Your task to perform on an android device: turn off translation in the chrome app Image 0: 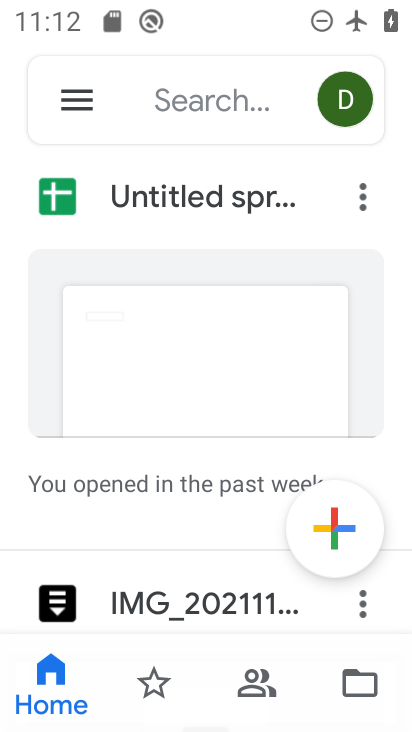
Step 0: press home button
Your task to perform on an android device: turn off translation in the chrome app Image 1: 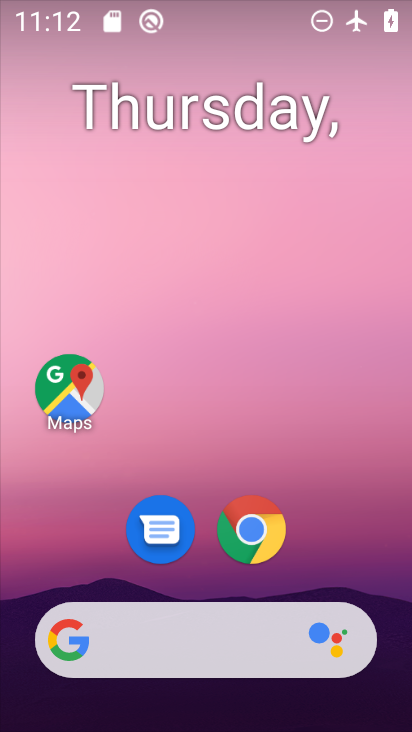
Step 1: press home button
Your task to perform on an android device: turn off translation in the chrome app Image 2: 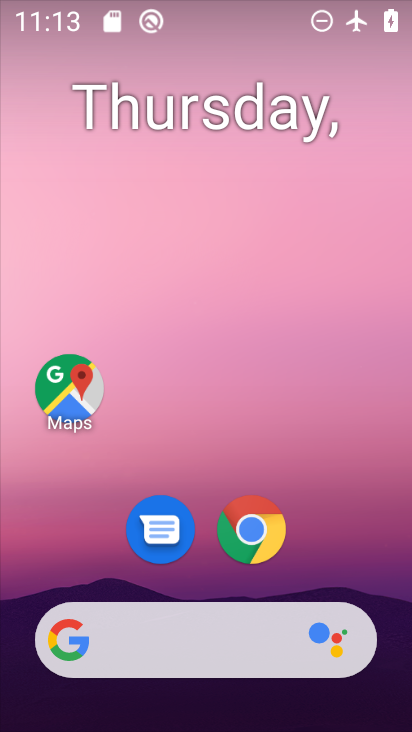
Step 2: click (272, 537)
Your task to perform on an android device: turn off translation in the chrome app Image 3: 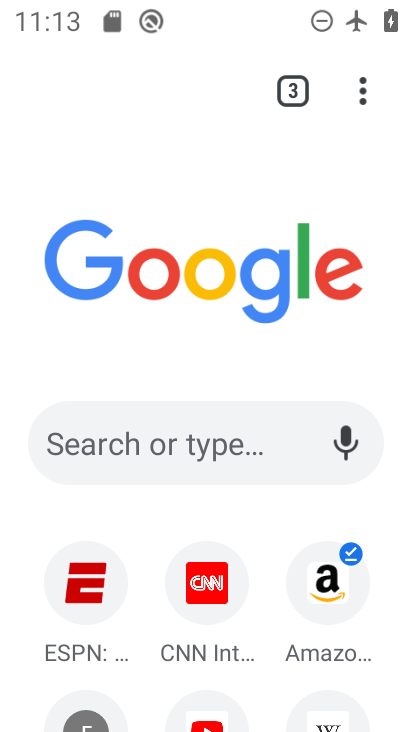
Step 3: click (350, 82)
Your task to perform on an android device: turn off translation in the chrome app Image 4: 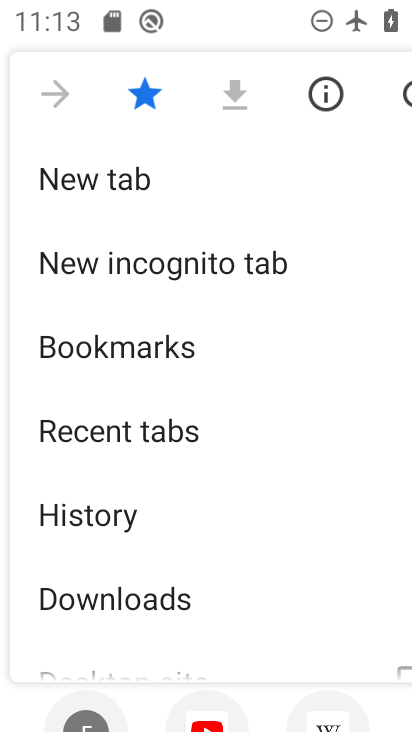
Step 4: drag from (386, 78) to (384, 268)
Your task to perform on an android device: turn off translation in the chrome app Image 5: 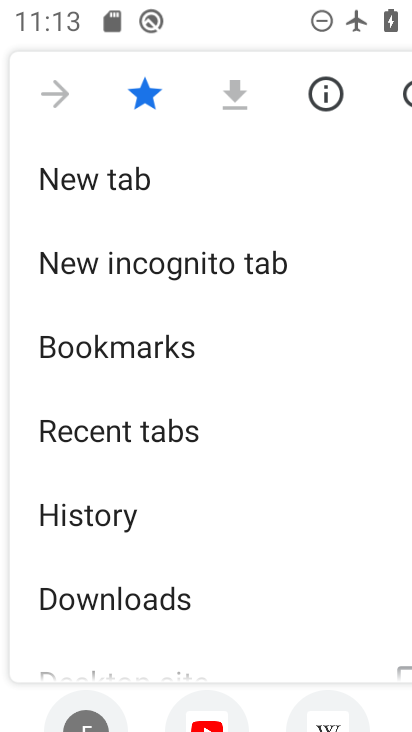
Step 5: drag from (200, 631) to (302, 63)
Your task to perform on an android device: turn off translation in the chrome app Image 6: 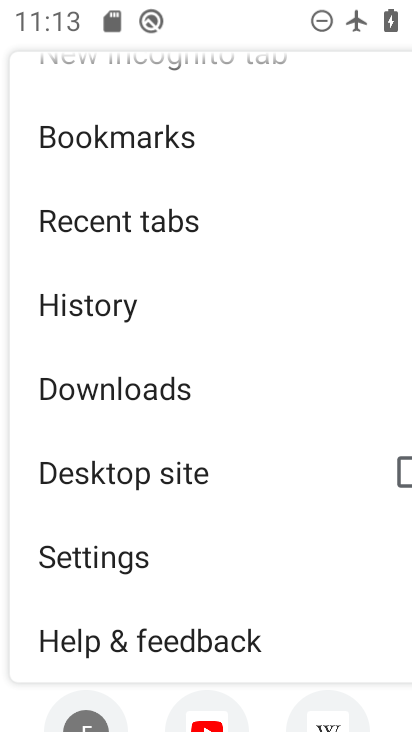
Step 6: click (110, 555)
Your task to perform on an android device: turn off translation in the chrome app Image 7: 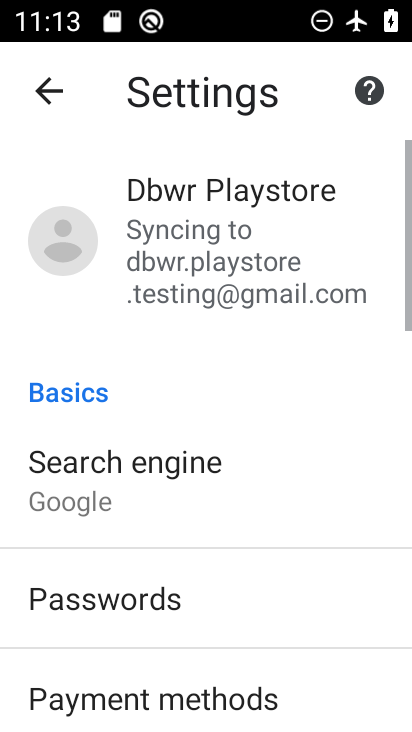
Step 7: drag from (133, 588) to (193, 8)
Your task to perform on an android device: turn off translation in the chrome app Image 8: 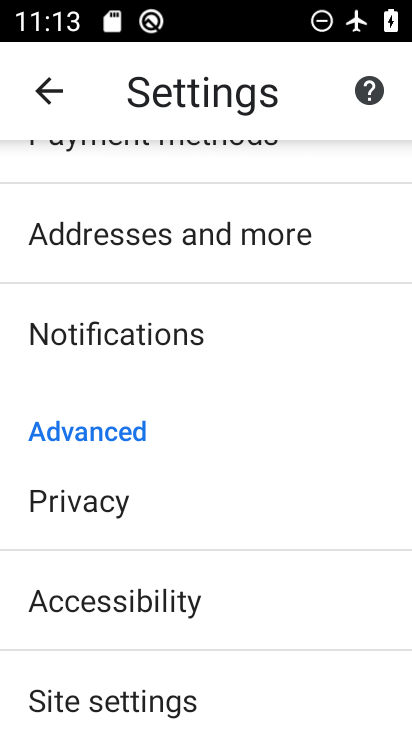
Step 8: drag from (171, 667) to (189, 283)
Your task to perform on an android device: turn off translation in the chrome app Image 9: 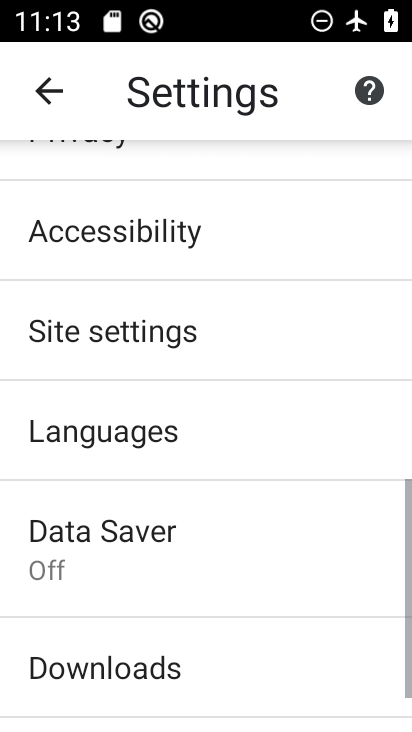
Step 9: click (206, 431)
Your task to perform on an android device: turn off translation in the chrome app Image 10: 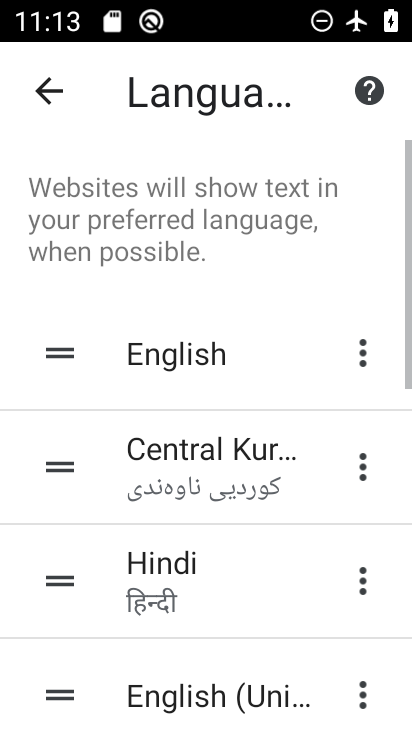
Step 10: task complete